Your task to perform on an android device: Search for sushi restaurants on Maps Image 0: 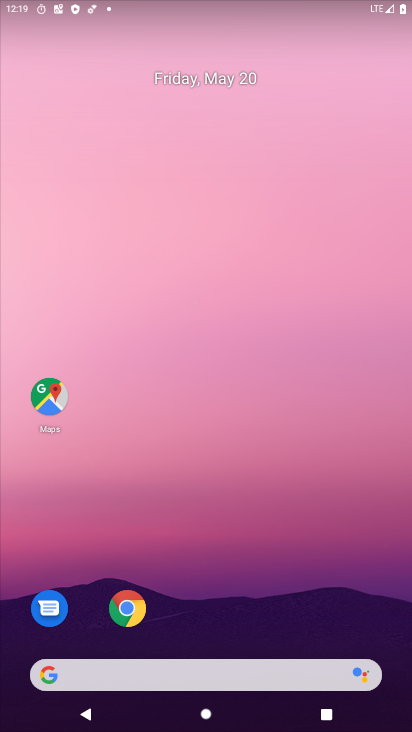
Step 0: drag from (288, 566) to (283, 191)
Your task to perform on an android device: Search for sushi restaurants on Maps Image 1: 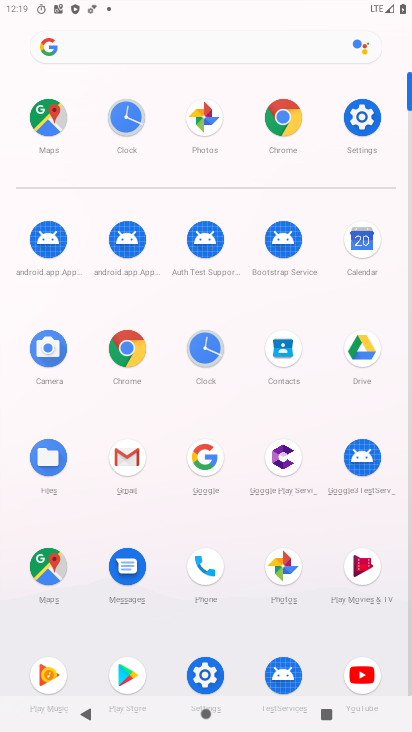
Step 1: click (42, 576)
Your task to perform on an android device: Search for sushi restaurants on Maps Image 2: 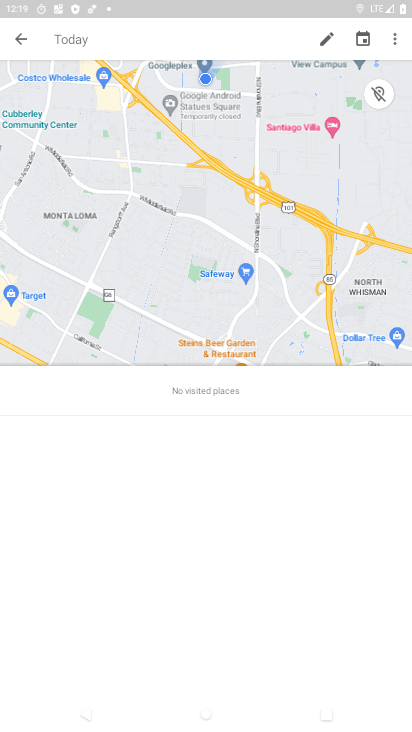
Step 2: click (18, 38)
Your task to perform on an android device: Search for sushi restaurants on Maps Image 3: 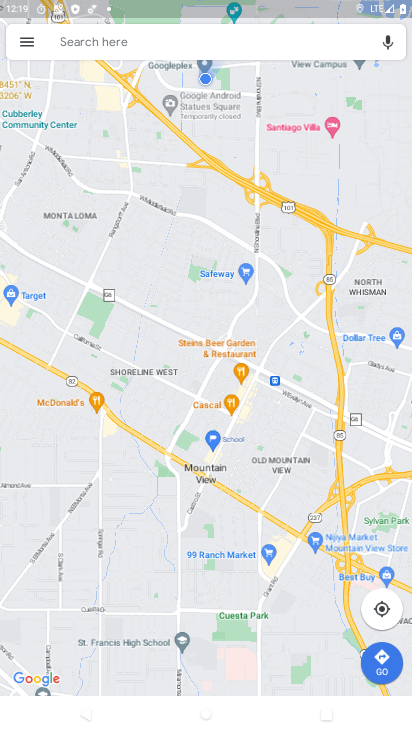
Step 3: click (239, 39)
Your task to perform on an android device: Search for sushi restaurants on Maps Image 4: 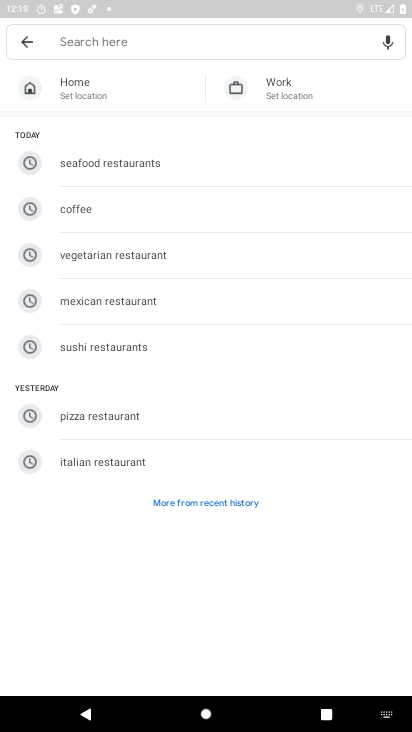
Step 4: click (96, 356)
Your task to perform on an android device: Search for sushi restaurants on Maps Image 5: 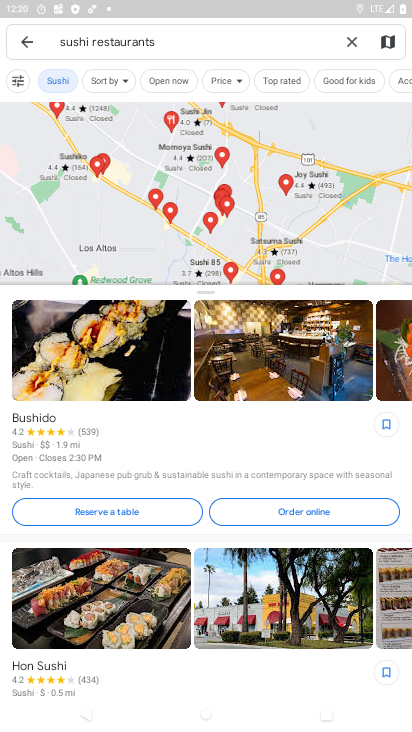
Step 5: task complete